Your task to perform on an android device: turn on javascript in the chrome app Image 0: 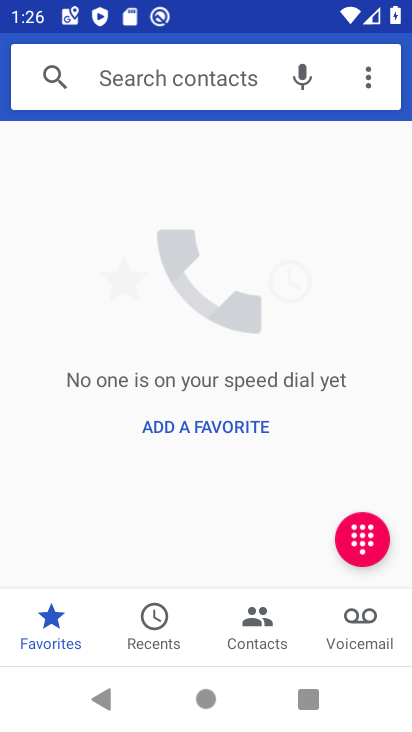
Step 0: press home button
Your task to perform on an android device: turn on javascript in the chrome app Image 1: 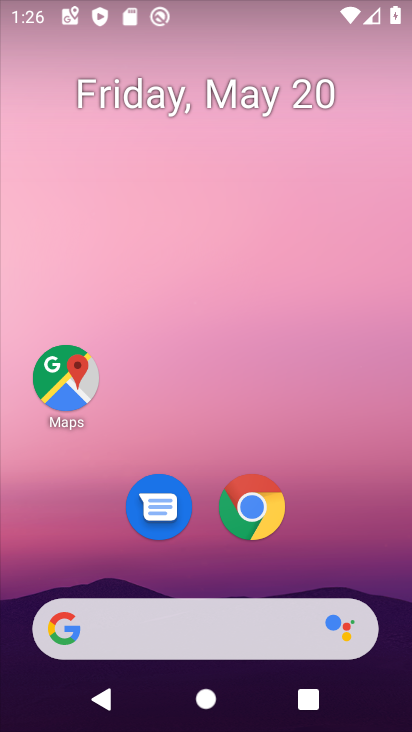
Step 1: click (250, 503)
Your task to perform on an android device: turn on javascript in the chrome app Image 2: 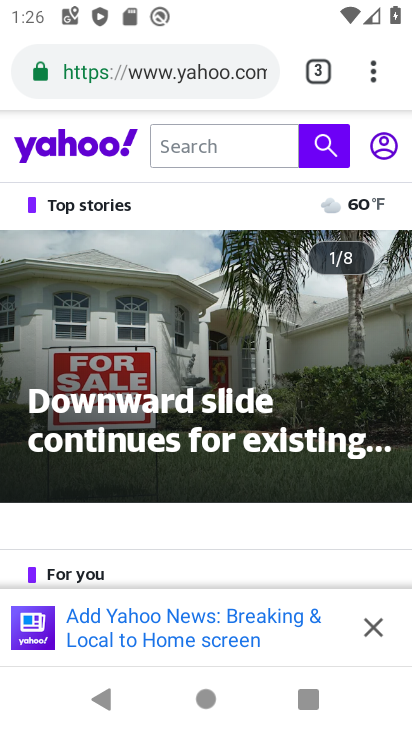
Step 2: click (375, 80)
Your task to perform on an android device: turn on javascript in the chrome app Image 3: 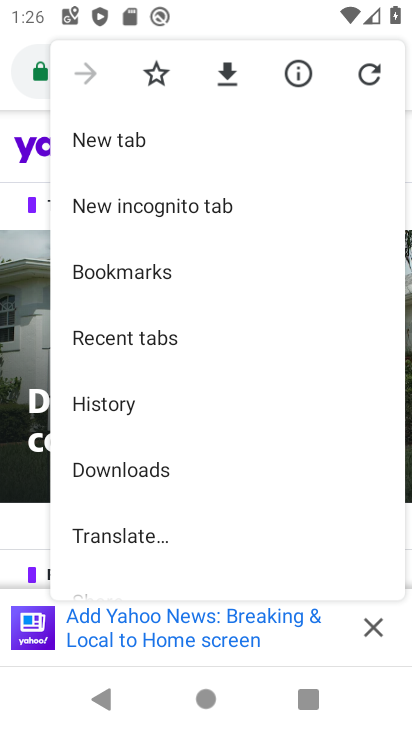
Step 3: drag from (190, 527) to (200, 170)
Your task to perform on an android device: turn on javascript in the chrome app Image 4: 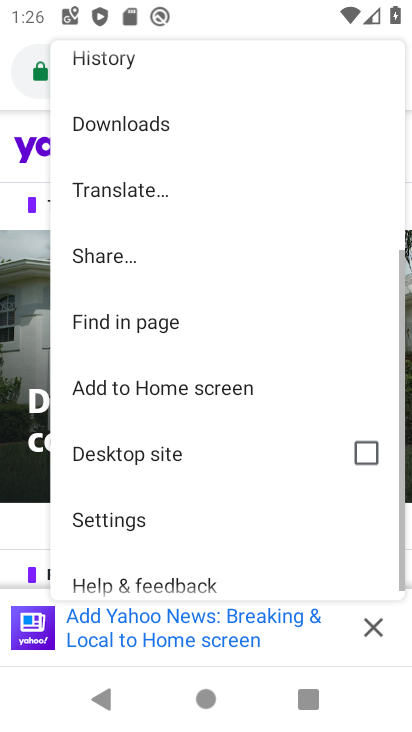
Step 4: click (120, 526)
Your task to perform on an android device: turn on javascript in the chrome app Image 5: 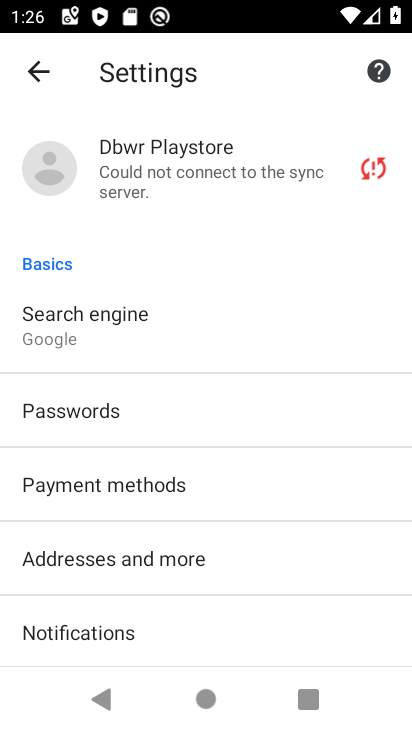
Step 5: drag from (156, 639) to (156, 376)
Your task to perform on an android device: turn on javascript in the chrome app Image 6: 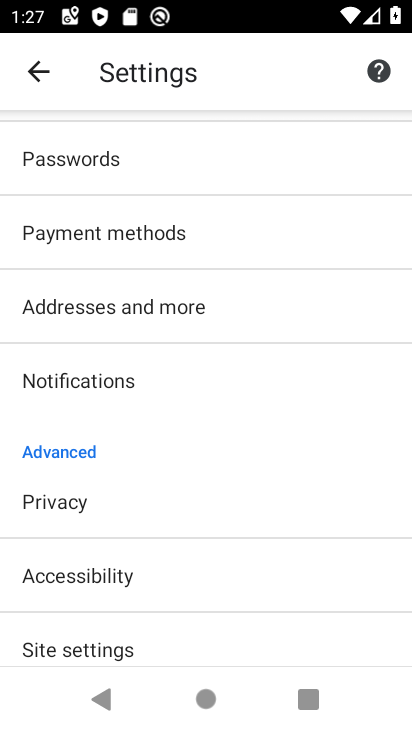
Step 6: drag from (115, 598) to (142, 313)
Your task to perform on an android device: turn on javascript in the chrome app Image 7: 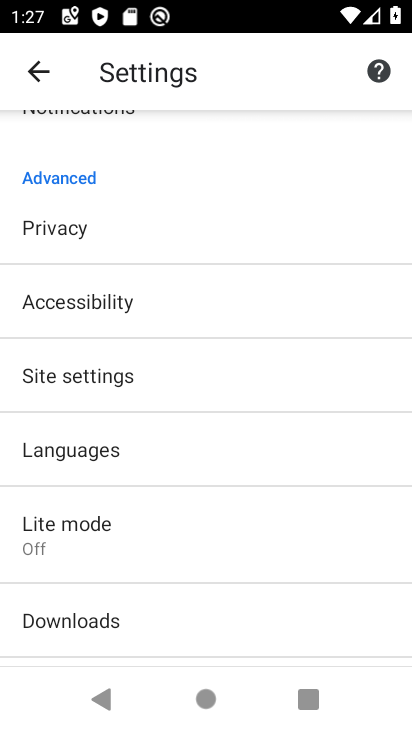
Step 7: click (95, 369)
Your task to perform on an android device: turn on javascript in the chrome app Image 8: 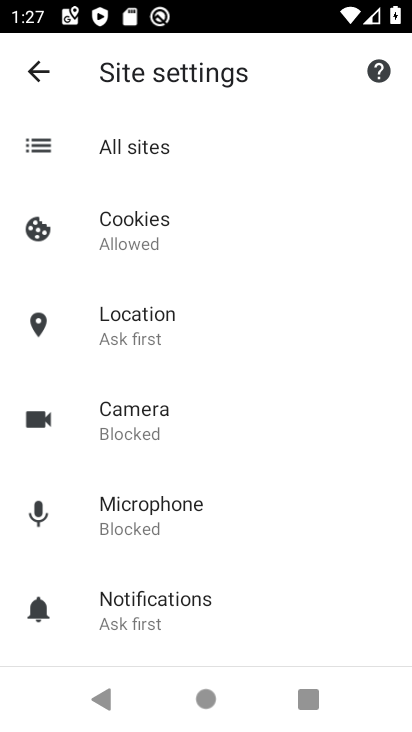
Step 8: drag from (173, 625) to (185, 307)
Your task to perform on an android device: turn on javascript in the chrome app Image 9: 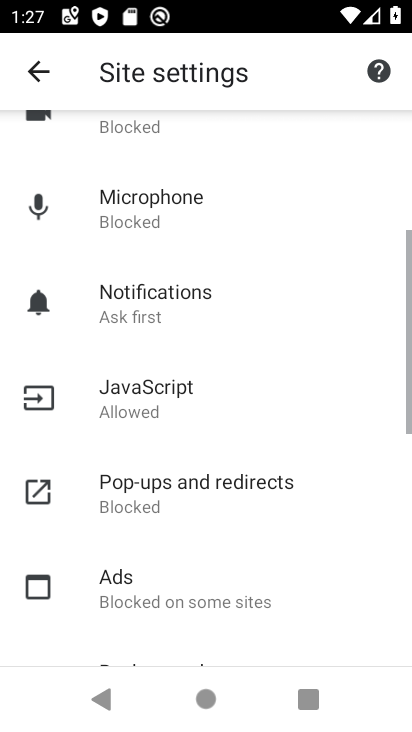
Step 9: drag from (176, 586) to (194, 288)
Your task to perform on an android device: turn on javascript in the chrome app Image 10: 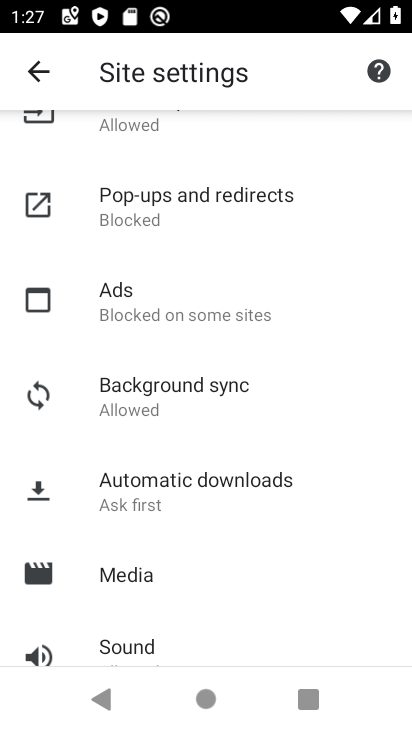
Step 10: drag from (175, 221) to (199, 420)
Your task to perform on an android device: turn on javascript in the chrome app Image 11: 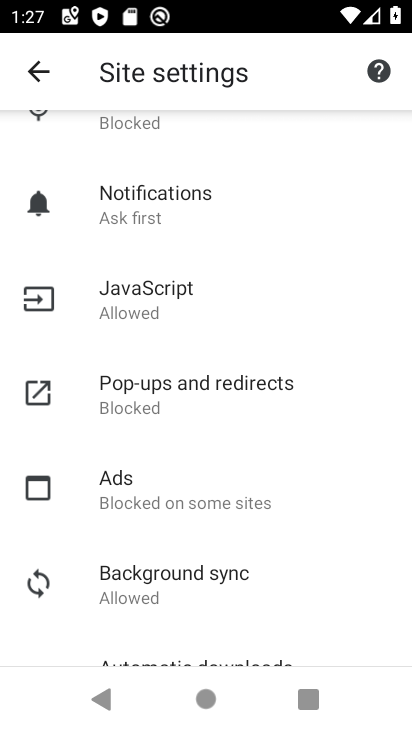
Step 11: click (140, 296)
Your task to perform on an android device: turn on javascript in the chrome app Image 12: 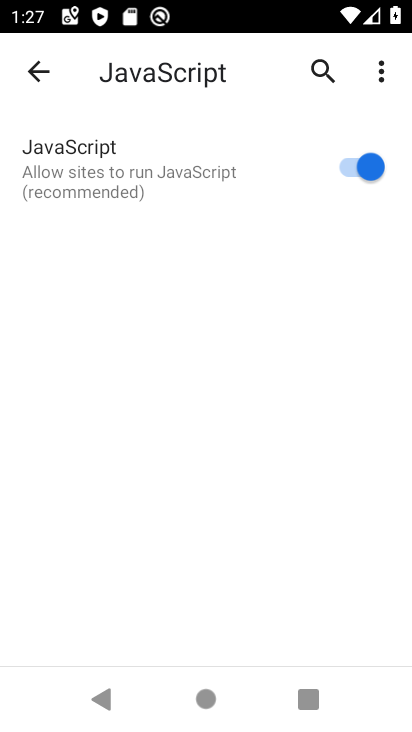
Step 12: task complete